Your task to perform on an android device: Open Google Chrome and click the shortcut for Amazon.com Image 0: 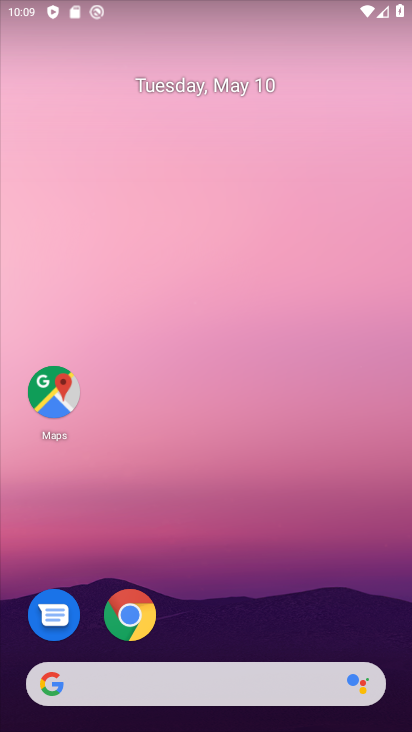
Step 0: click (129, 613)
Your task to perform on an android device: Open Google Chrome and click the shortcut for Amazon.com Image 1: 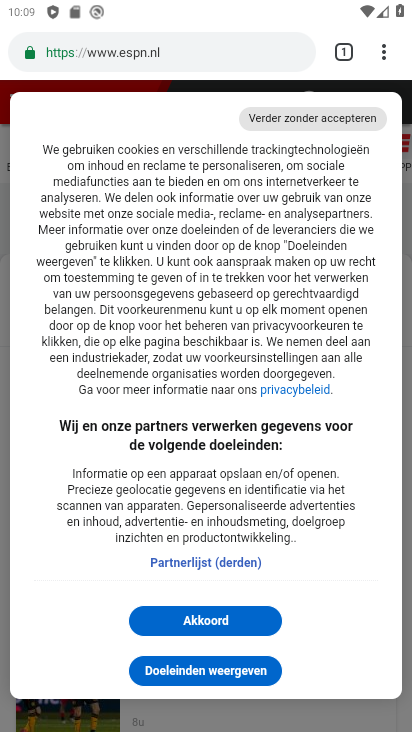
Step 1: click (340, 52)
Your task to perform on an android device: Open Google Chrome and click the shortcut for Amazon.com Image 2: 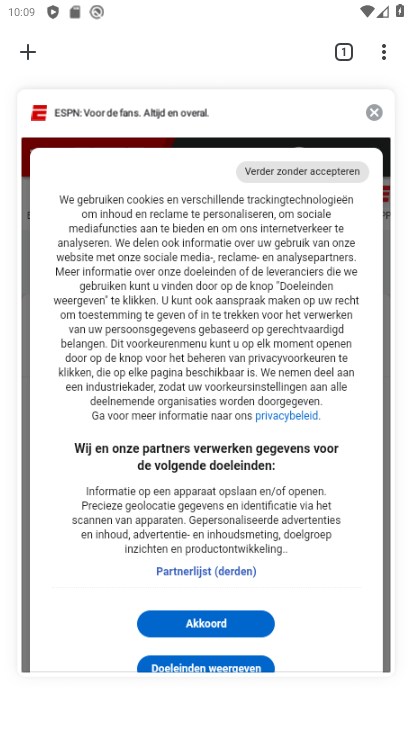
Step 2: click (374, 113)
Your task to perform on an android device: Open Google Chrome and click the shortcut for Amazon.com Image 3: 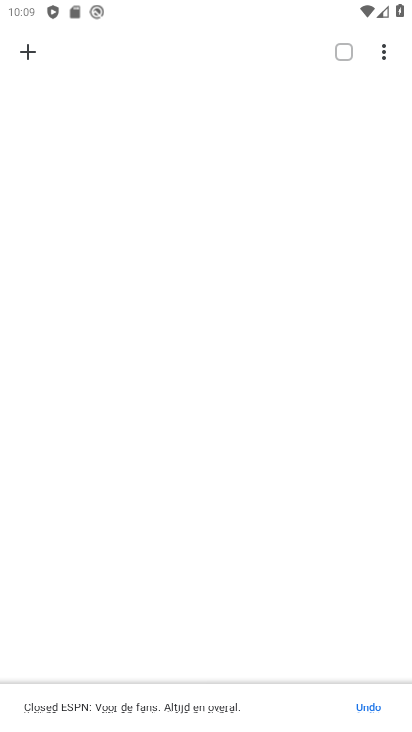
Step 3: click (27, 54)
Your task to perform on an android device: Open Google Chrome and click the shortcut for Amazon.com Image 4: 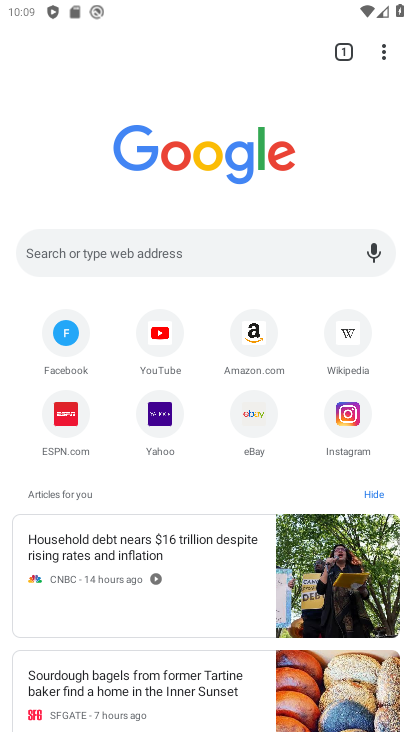
Step 4: click (256, 340)
Your task to perform on an android device: Open Google Chrome and click the shortcut for Amazon.com Image 5: 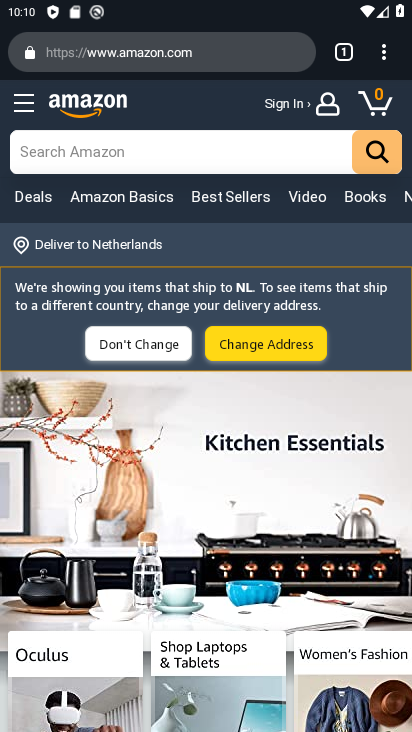
Step 5: task complete